Your task to perform on an android device: toggle sleep mode Image 0: 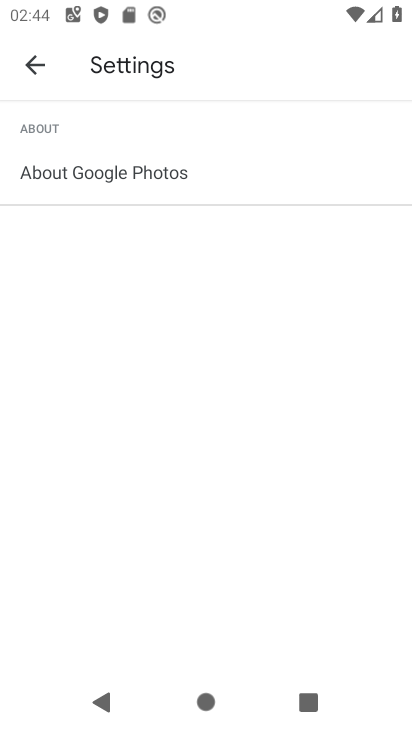
Step 0: press back button
Your task to perform on an android device: toggle sleep mode Image 1: 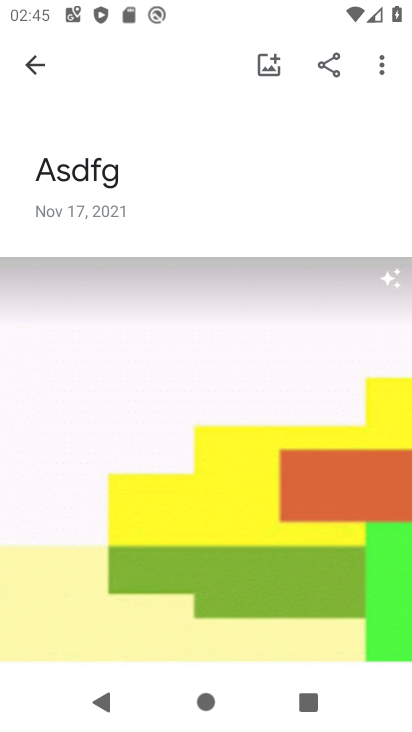
Step 1: press home button
Your task to perform on an android device: toggle sleep mode Image 2: 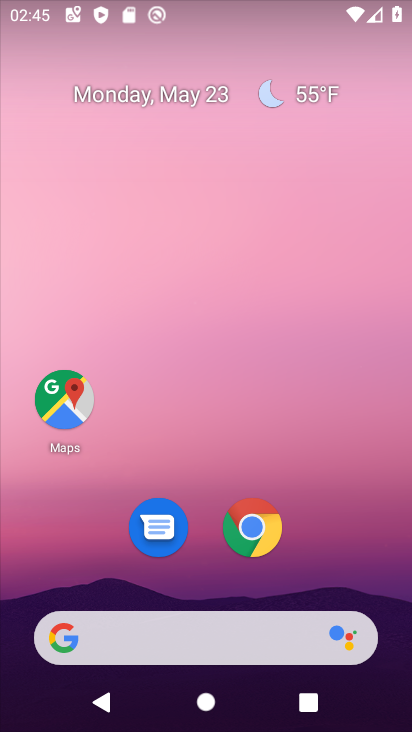
Step 2: drag from (363, 549) to (205, 10)
Your task to perform on an android device: toggle sleep mode Image 3: 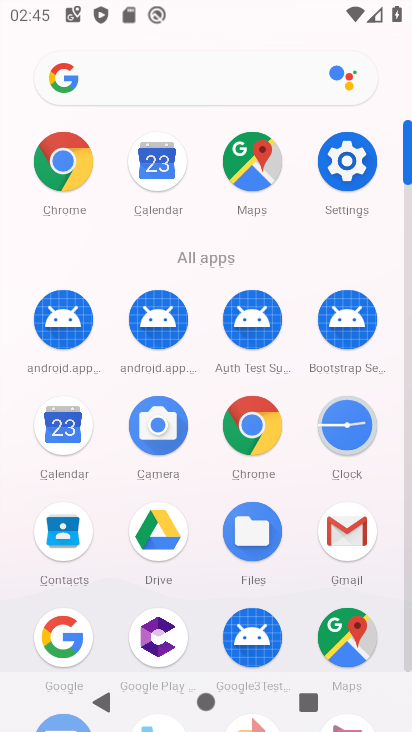
Step 3: drag from (17, 582) to (12, 187)
Your task to perform on an android device: toggle sleep mode Image 4: 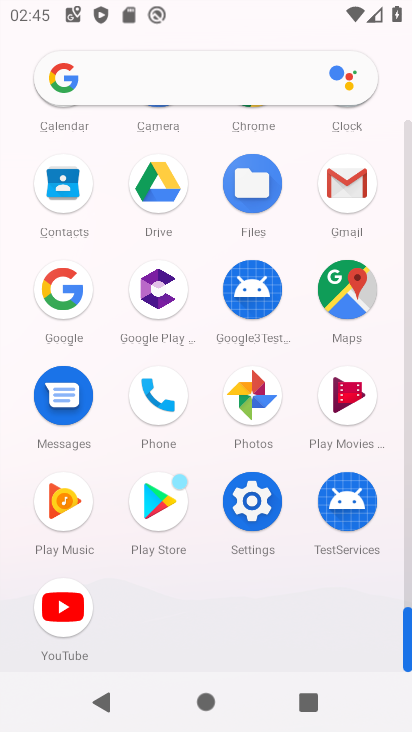
Step 4: click (252, 496)
Your task to perform on an android device: toggle sleep mode Image 5: 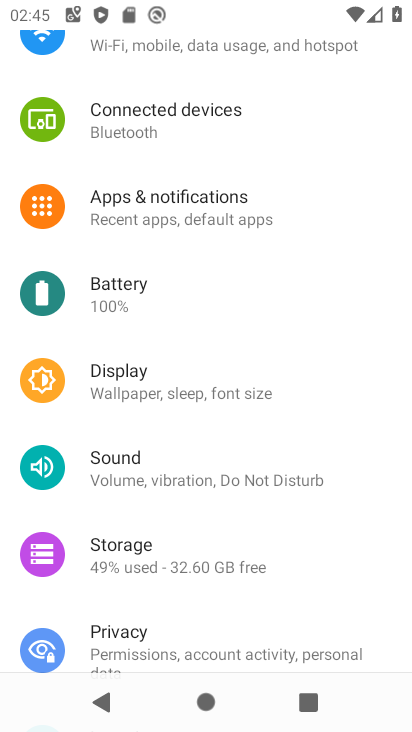
Step 5: drag from (266, 132) to (290, 591)
Your task to perform on an android device: toggle sleep mode Image 6: 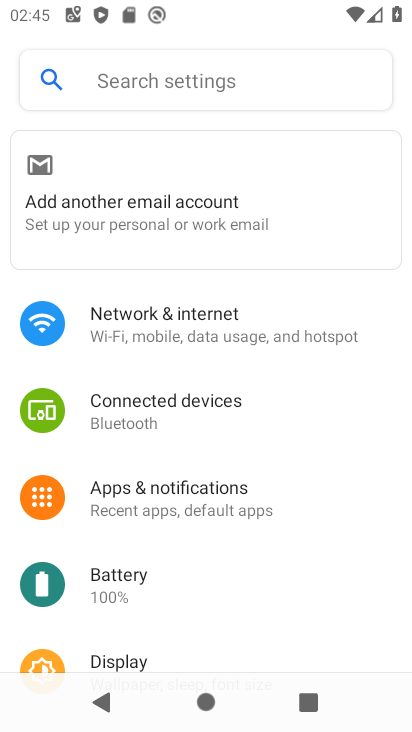
Step 6: drag from (286, 188) to (284, 588)
Your task to perform on an android device: toggle sleep mode Image 7: 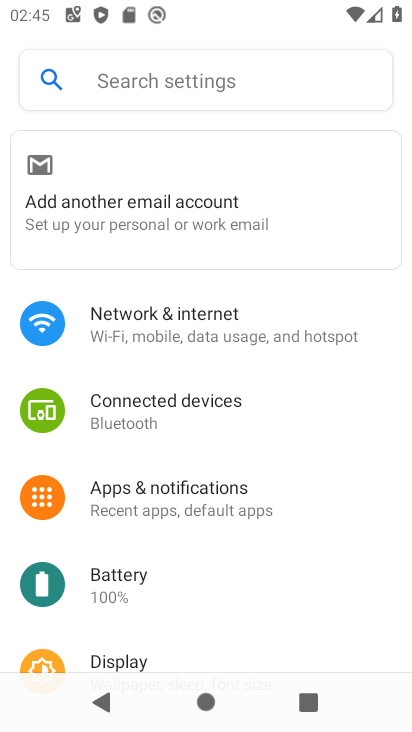
Step 7: drag from (287, 542) to (271, 363)
Your task to perform on an android device: toggle sleep mode Image 8: 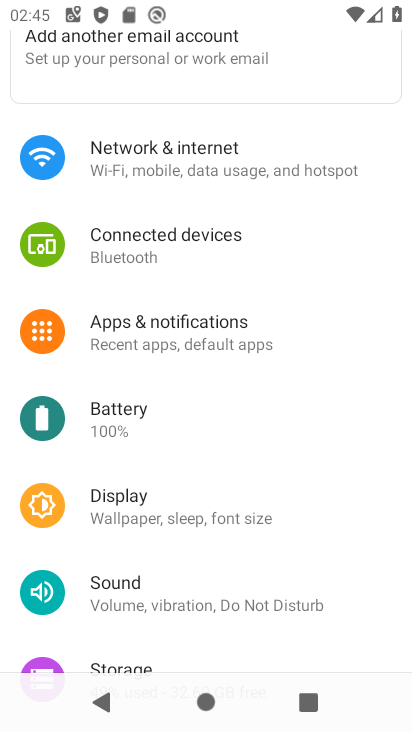
Step 8: click (166, 499)
Your task to perform on an android device: toggle sleep mode Image 9: 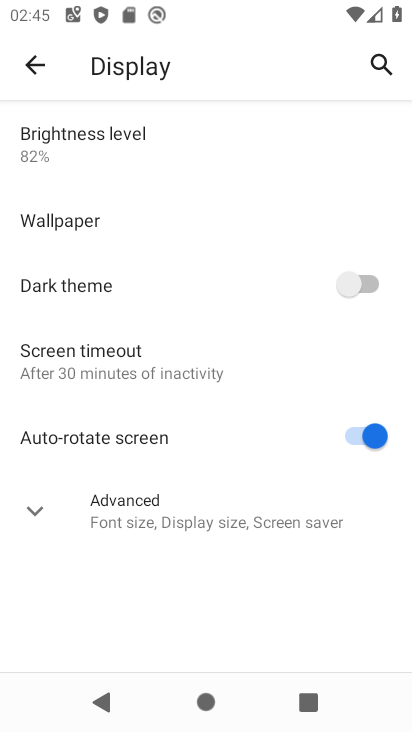
Step 9: click (41, 508)
Your task to perform on an android device: toggle sleep mode Image 10: 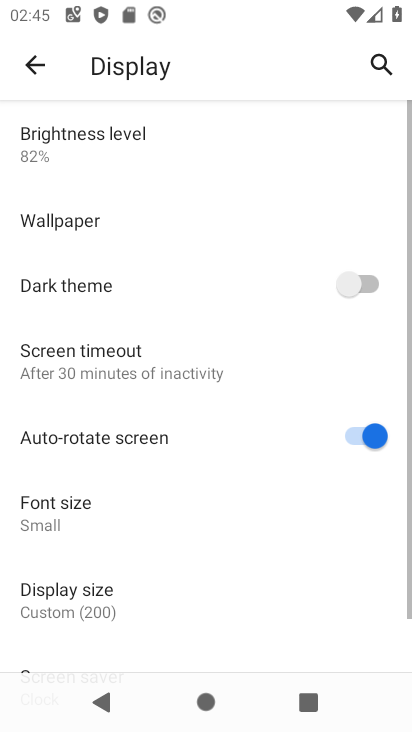
Step 10: task complete